Your task to perform on an android device: Open Youtube and go to the subscriptions tab Image 0: 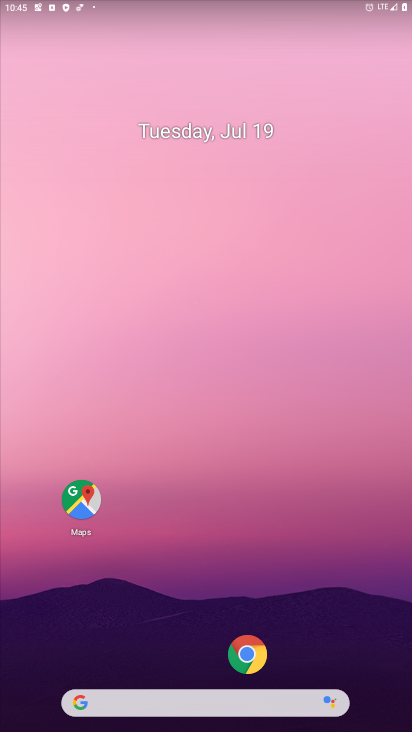
Step 0: drag from (173, 654) to (171, 290)
Your task to perform on an android device: Open Youtube and go to the subscriptions tab Image 1: 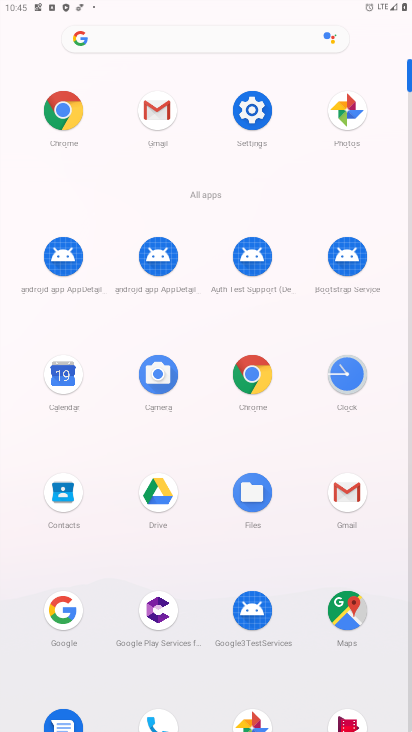
Step 1: drag from (232, 647) to (286, 49)
Your task to perform on an android device: Open Youtube and go to the subscriptions tab Image 2: 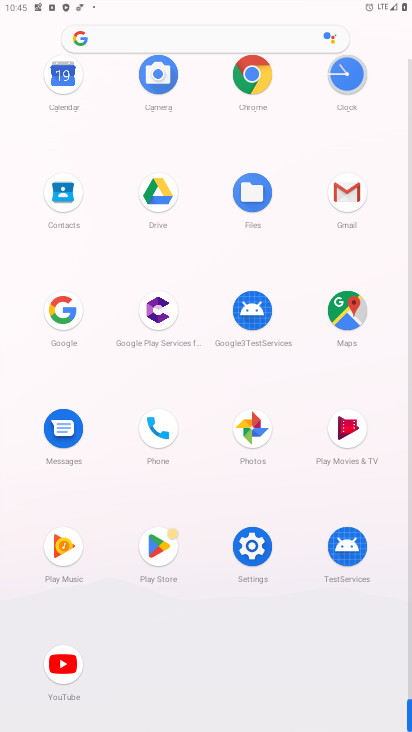
Step 2: click (51, 664)
Your task to perform on an android device: Open Youtube and go to the subscriptions tab Image 3: 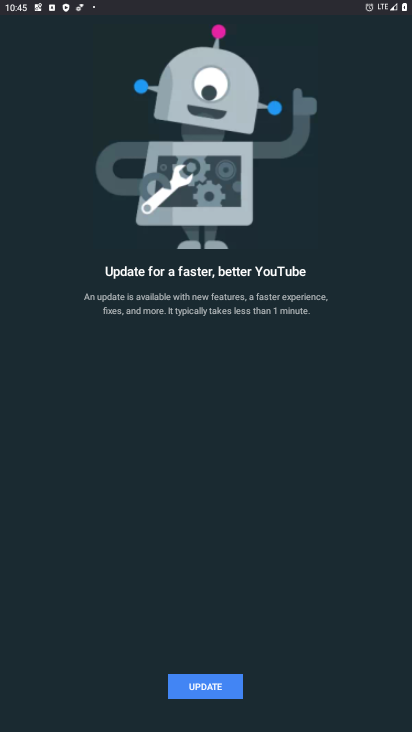
Step 3: click (178, 696)
Your task to perform on an android device: Open Youtube and go to the subscriptions tab Image 4: 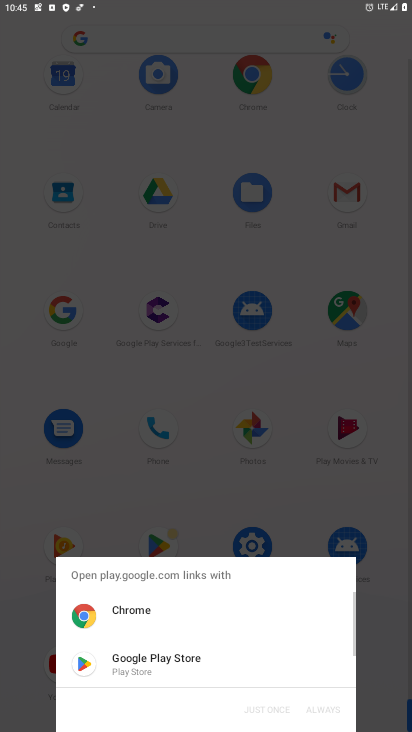
Step 4: click (212, 677)
Your task to perform on an android device: Open Youtube and go to the subscriptions tab Image 5: 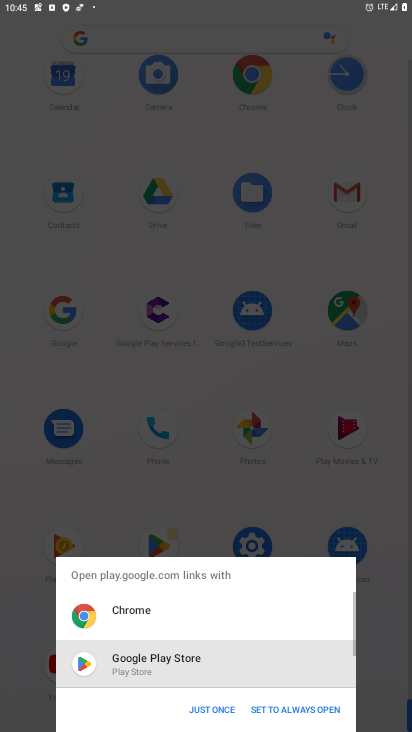
Step 5: click (229, 712)
Your task to perform on an android device: Open Youtube and go to the subscriptions tab Image 6: 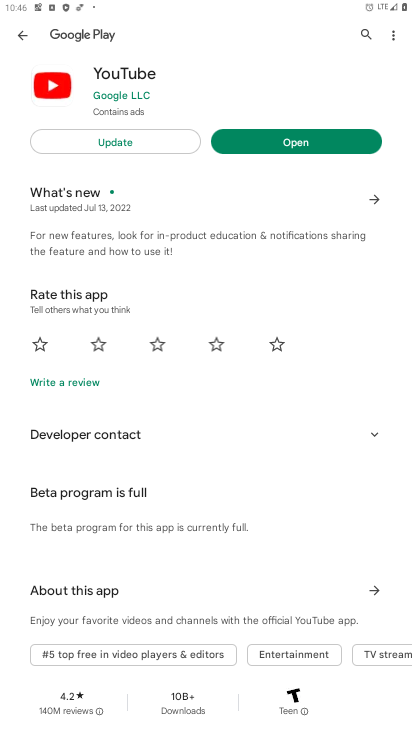
Step 6: click (162, 130)
Your task to perform on an android device: Open Youtube and go to the subscriptions tab Image 7: 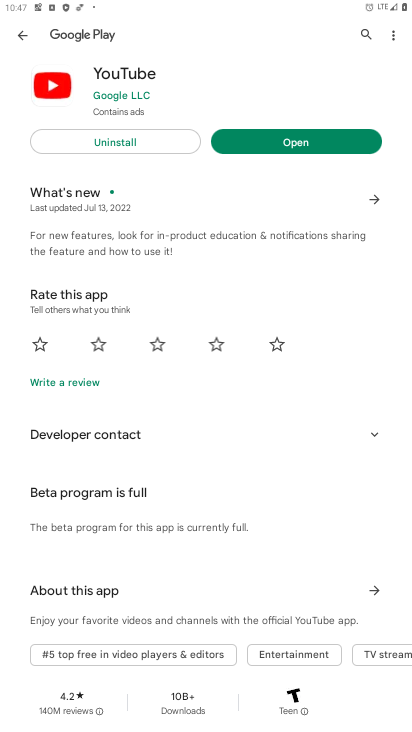
Step 7: click (291, 147)
Your task to perform on an android device: Open Youtube and go to the subscriptions tab Image 8: 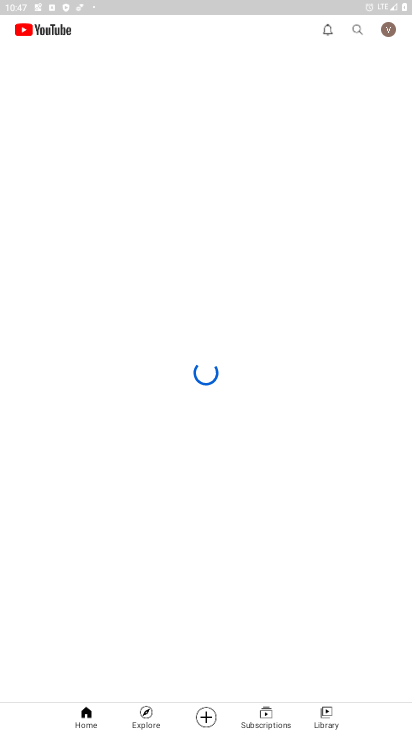
Step 8: click (267, 720)
Your task to perform on an android device: Open Youtube and go to the subscriptions tab Image 9: 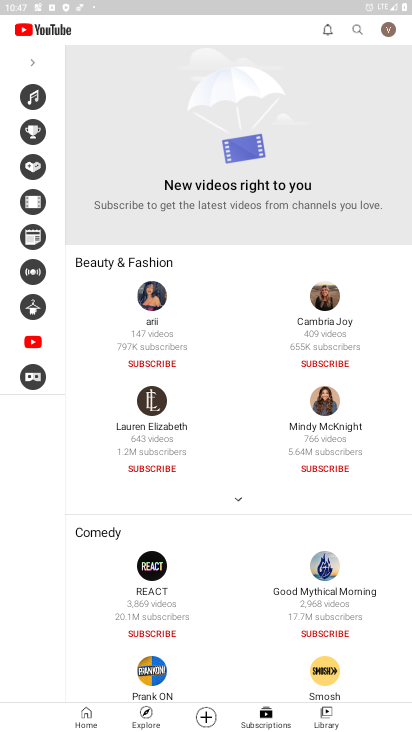
Step 9: task complete